Your task to perform on an android device: What's on my calendar tomorrow? Image 0: 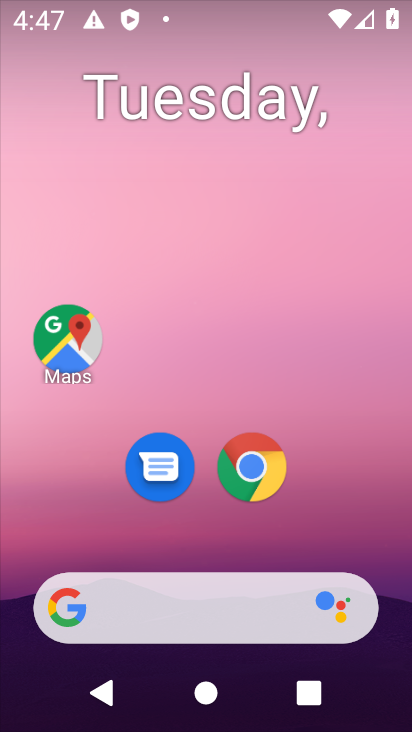
Step 0: drag from (291, 603) to (158, 7)
Your task to perform on an android device: What's on my calendar tomorrow? Image 1: 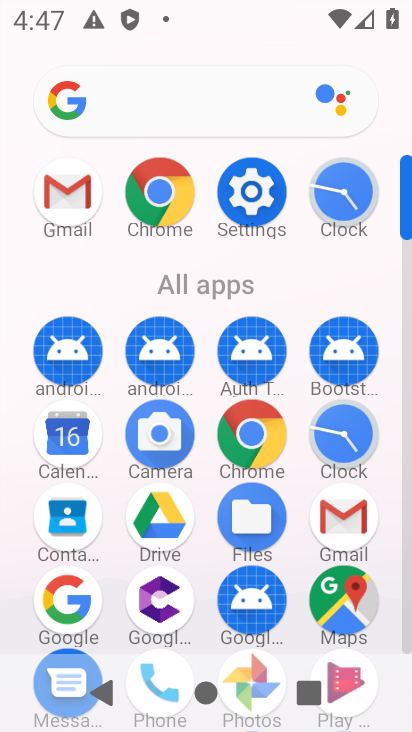
Step 1: click (67, 452)
Your task to perform on an android device: What's on my calendar tomorrow? Image 2: 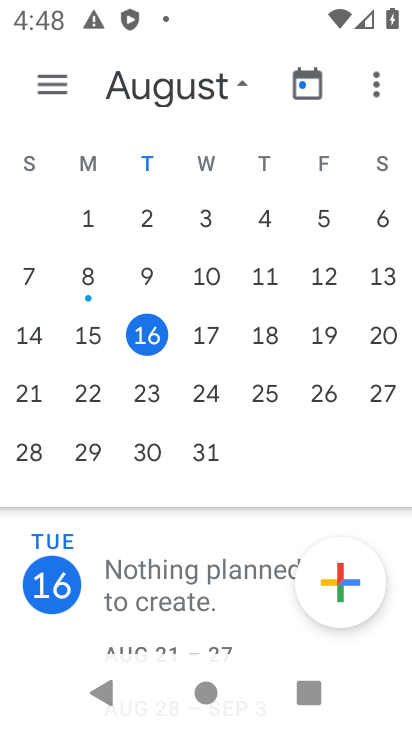
Step 2: click (196, 346)
Your task to perform on an android device: What's on my calendar tomorrow? Image 3: 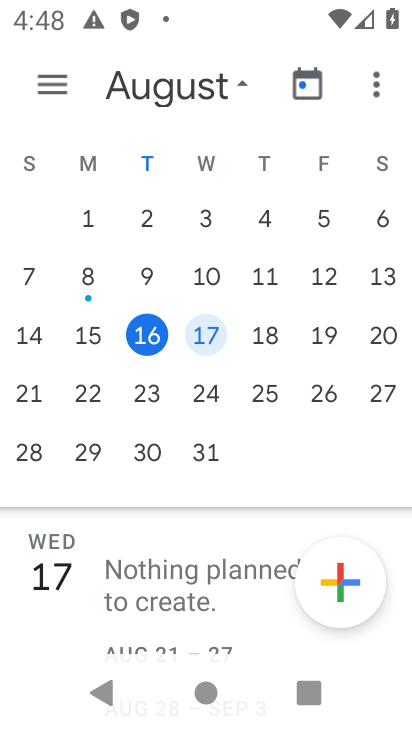
Step 3: task complete